Your task to perform on an android device: Open accessibility settings Image 0: 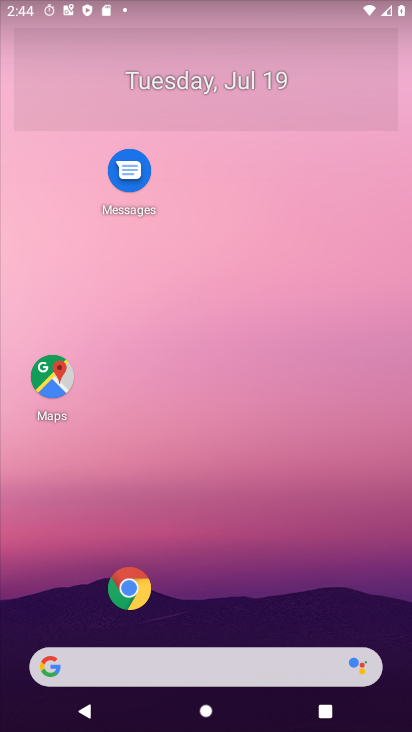
Step 0: drag from (83, 601) to (308, 82)
Your task to perform on an android device: Open accessibility settings Image 1: 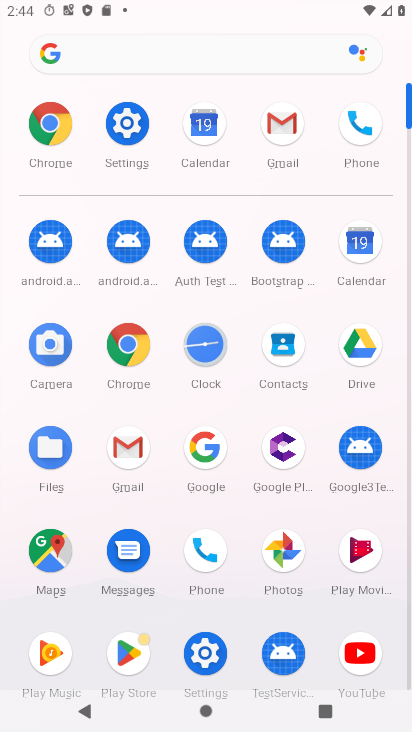
Step 1: click (200, 637)
Your task to perform on an android device: Open accessibility settings Image 2: 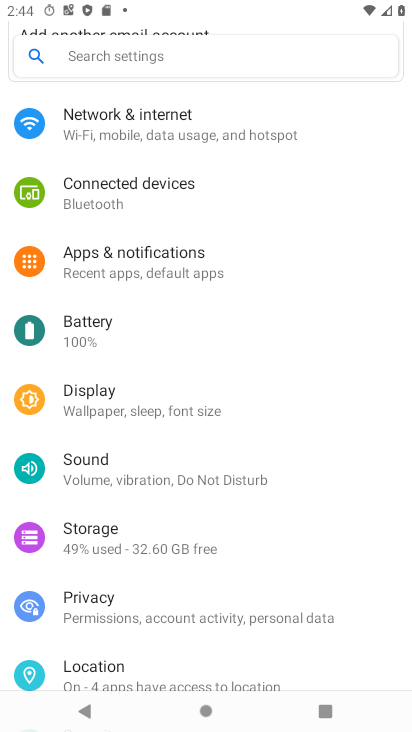
Step 2: drag from (161, 622) to (199, 378)
Your task to perform on an android device: Open accessibility settings Image 3: 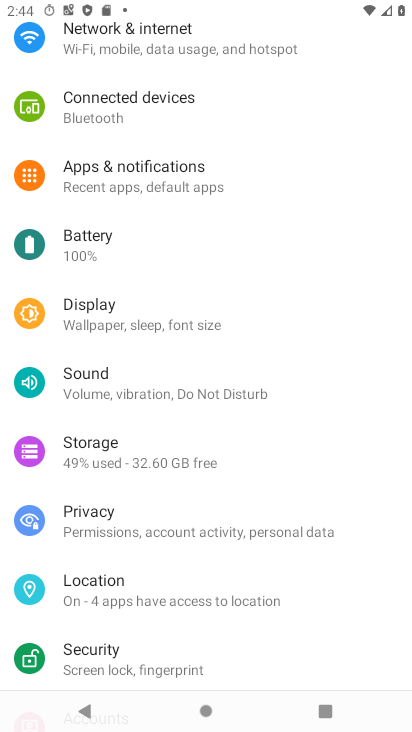
Step 3: drag from (174, 529) to (184, 404)
Your task to perform on an android device: Open accessibility settings Image 4: 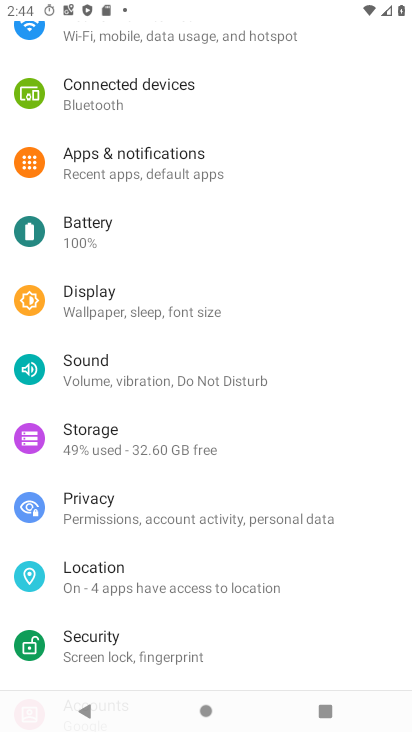
Step 4: drag from (300, 270) to (300, 560)
Your task to perform on an android device: Open accessibility settings Image 5: 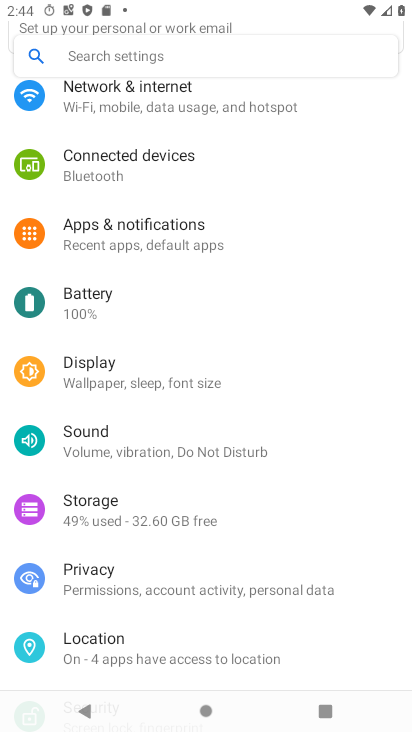
Step 5: drag from (228, 197) to (233, 593)
Your task to perform on an android device: Open accessibility settings Image 6: 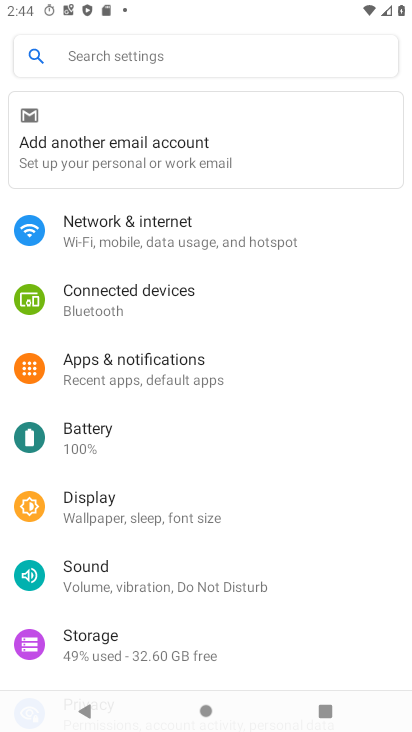
Step 6: drag from (263, 626) to (304, 366)
Your task to perform on an android device: Open accessibility settings Image 7: 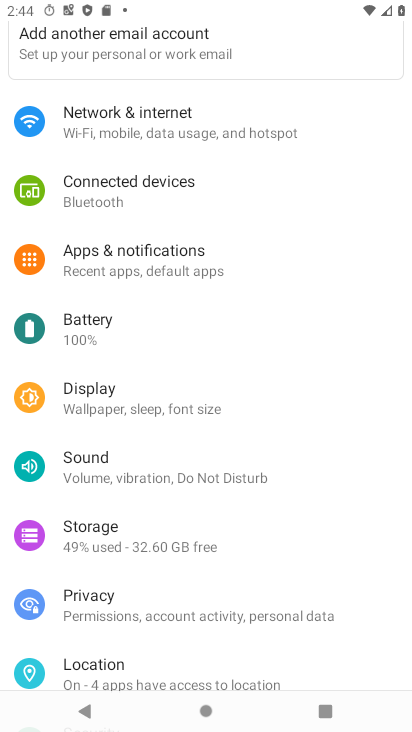
Step 7: drag from (151, 637) to (212, 289)
Your task to perform on an android device: Open accessibility settings Image 8: 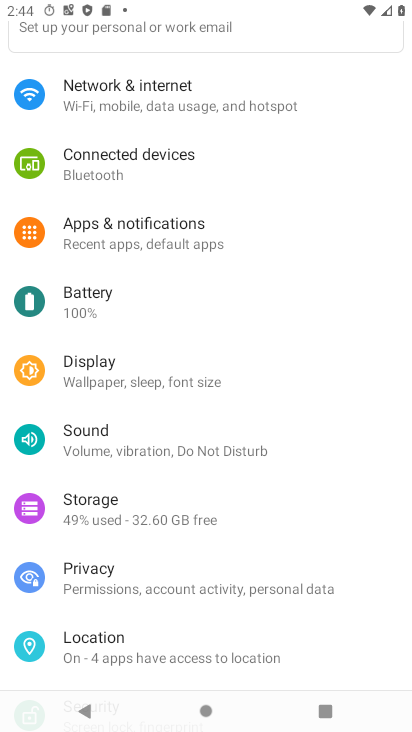
Step 8: drag from (254, 255) to (258, 695)
Your task to perform on an android device: Open accessibility settings Image 9: 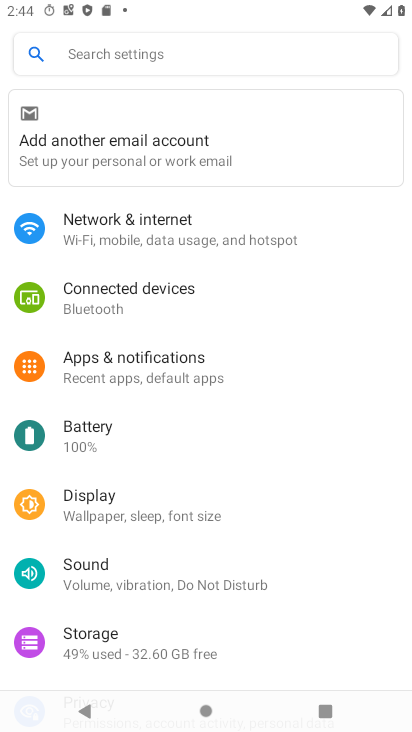
Step 9: drag from (204, 608) to (279, 171)
Your task to perform on an android device: Open accessibility settings Image 10: 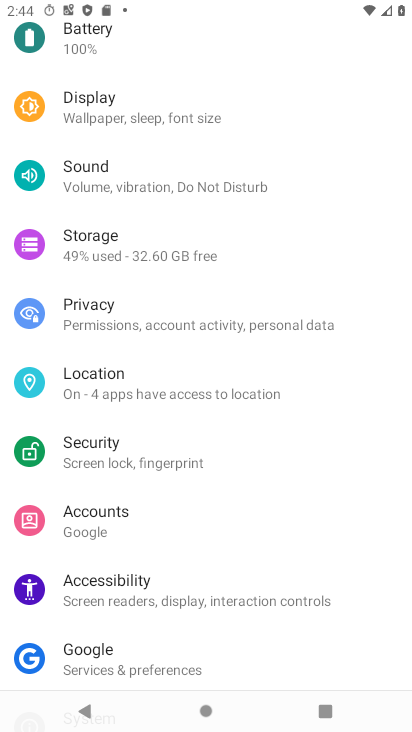
Step 10: click (100, 582)
Your task to perform on an android device: Open accessibility settings Image 11: 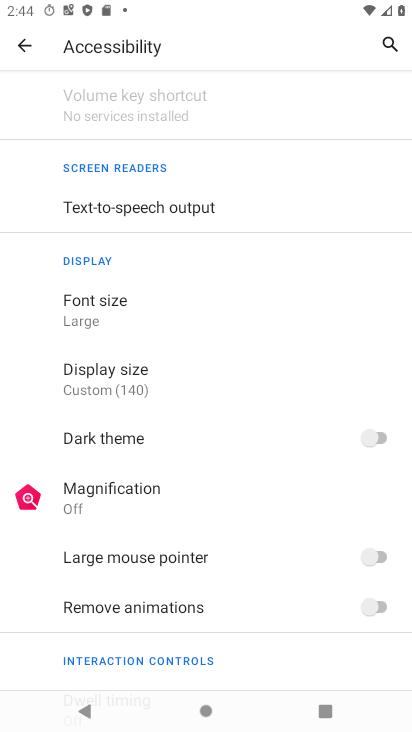
Step 11: task complete